Your task to perform on an android device: check out phone information Image 0: 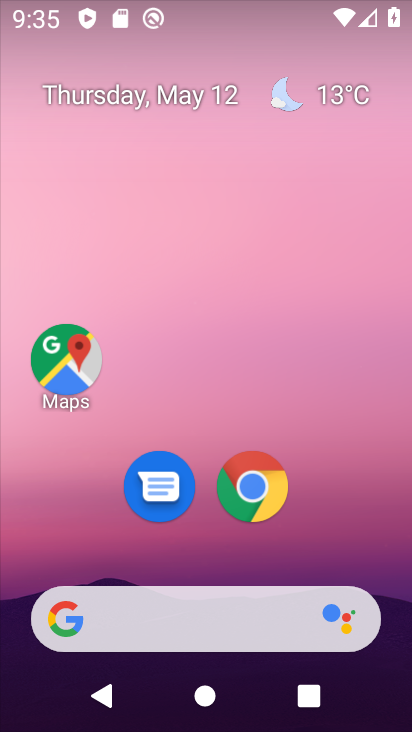
Step 0: drag from (363, 515) to (303, 143)
Your task to perform on an android device: check out phone information Image 1: 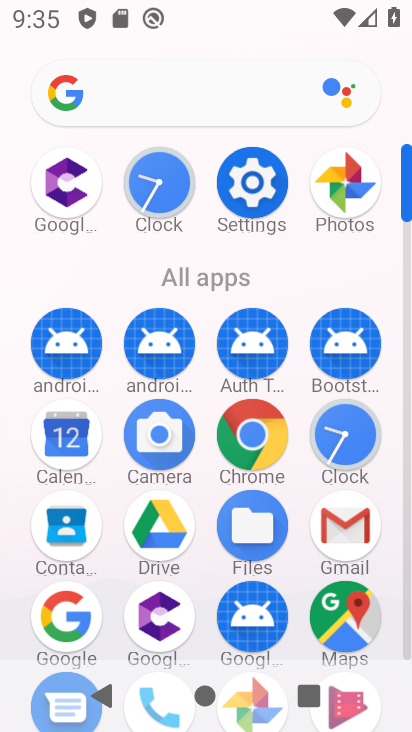
Step 1: click (244, 199)
Your task to perform on an android device: check out phone information Image 2: 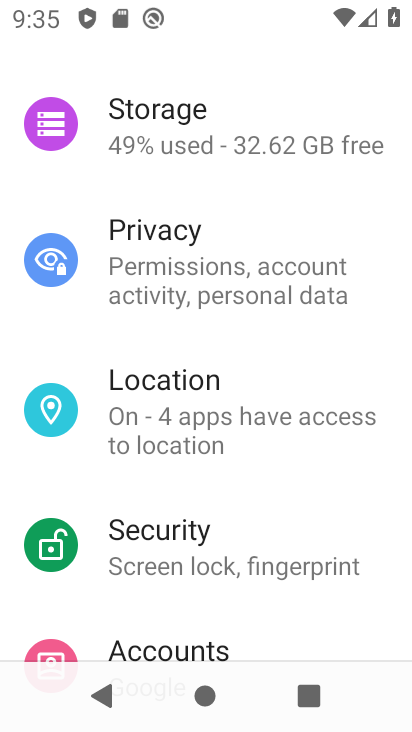
Step 2: drag from (324, 485) to (265, 30)
Your task to perform on an android device: check out phone information Image 3: 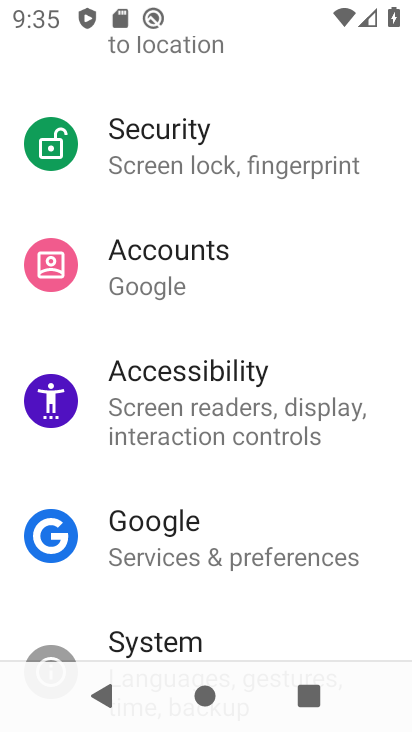
Step 3: drag from (273, 504) to (221, 153)
Your task to perform on an android device: check out phone information Image 4: 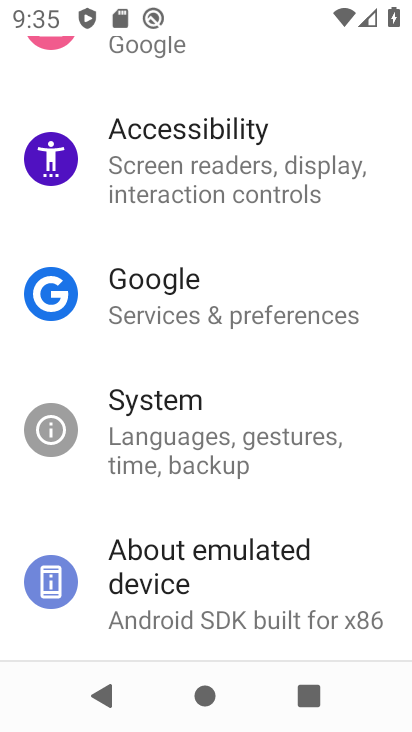
Step 4: drag from (278, 582) to (245, 166)
Your task to perform on an android device: check out phone information Image 5: 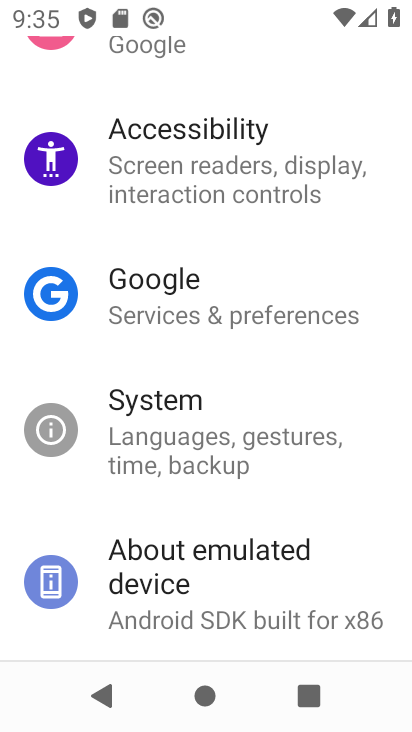
Step 5: click (242, 548)
Your task to perform on an android device: check out phone information Image 6: 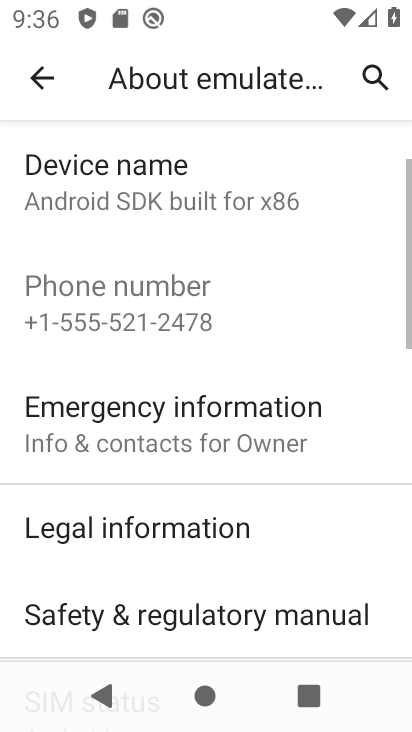
Step 6: task complete